Your task to perform on an android device: Open calendar and show me the first week of next month Image 0: 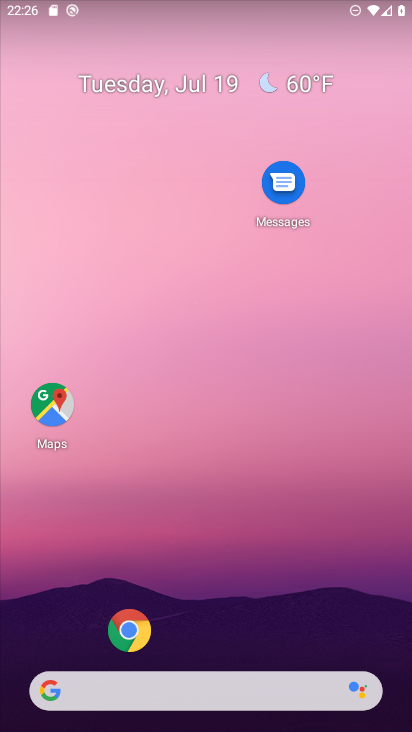
Step 0: drag from (10, 668) to (149, 286)
Your task to perform on an android device: Open calendar and show me the first week of next month Image 1: 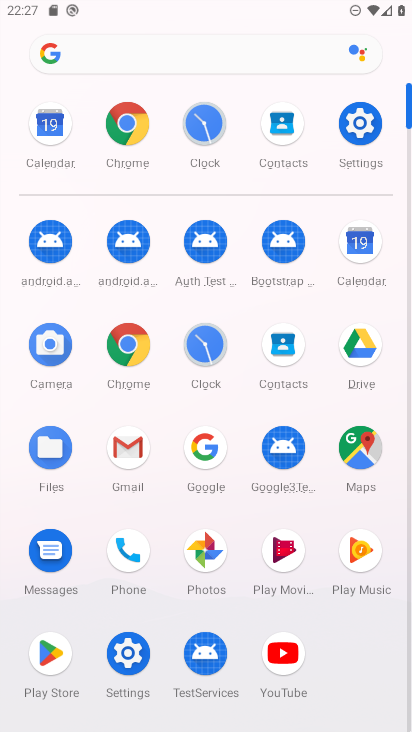
Step 1: click (350, 245)
Your task to perform on an android device: Open calendar and show me the first week of next month Image 2: 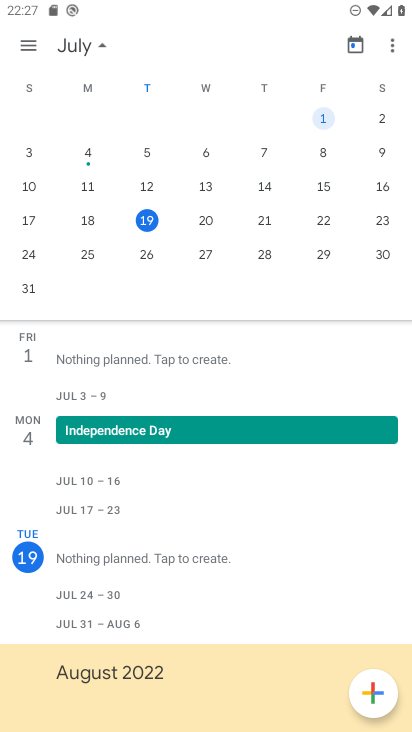
Step 2: task complete